Your task to perform on an android device: open app "Walmart Shopping & Grocery" (install if not already installed), go to login, and select forgot password Image 0: 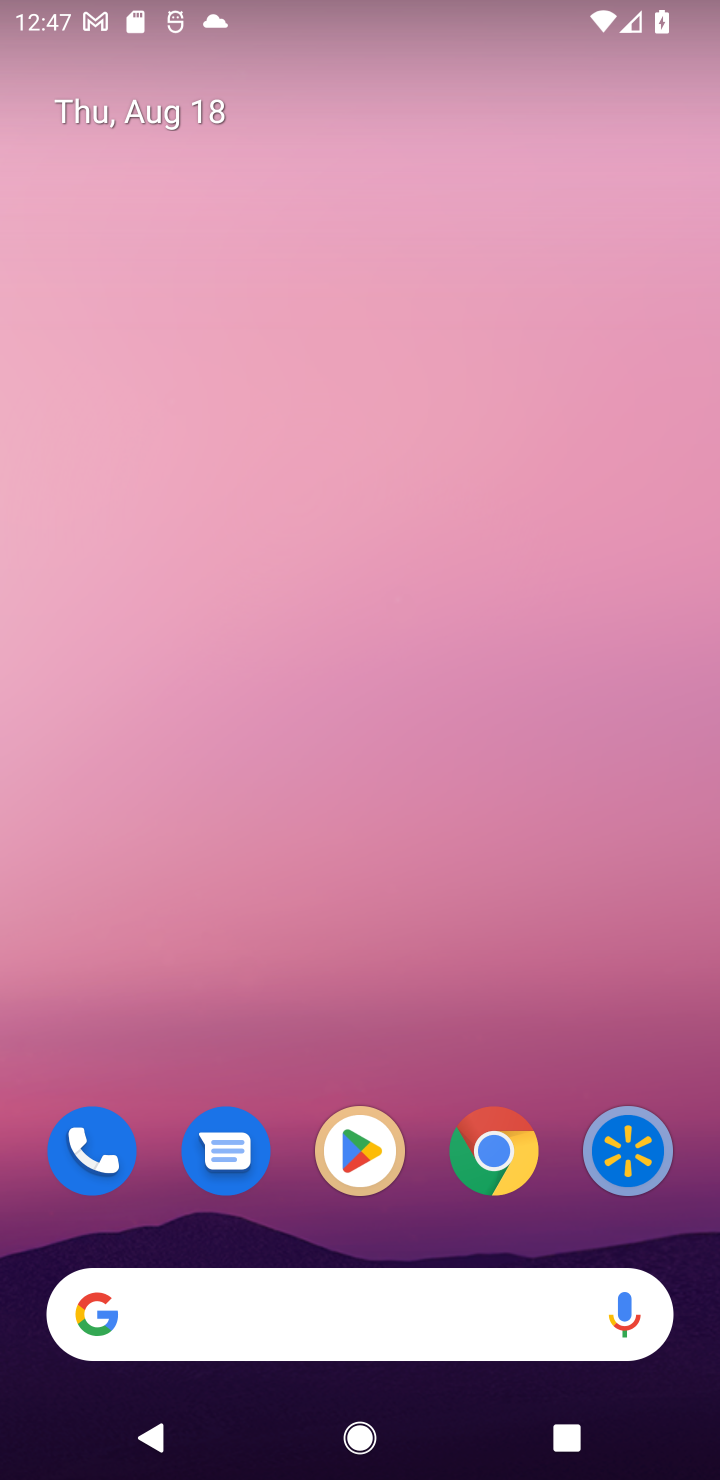
Step 0: click (350, 1175)
Your task to perform on an android device: open app "Walmart Shopping & Grocery" (install if not already installed), go to login, and select forgot password Image 1: 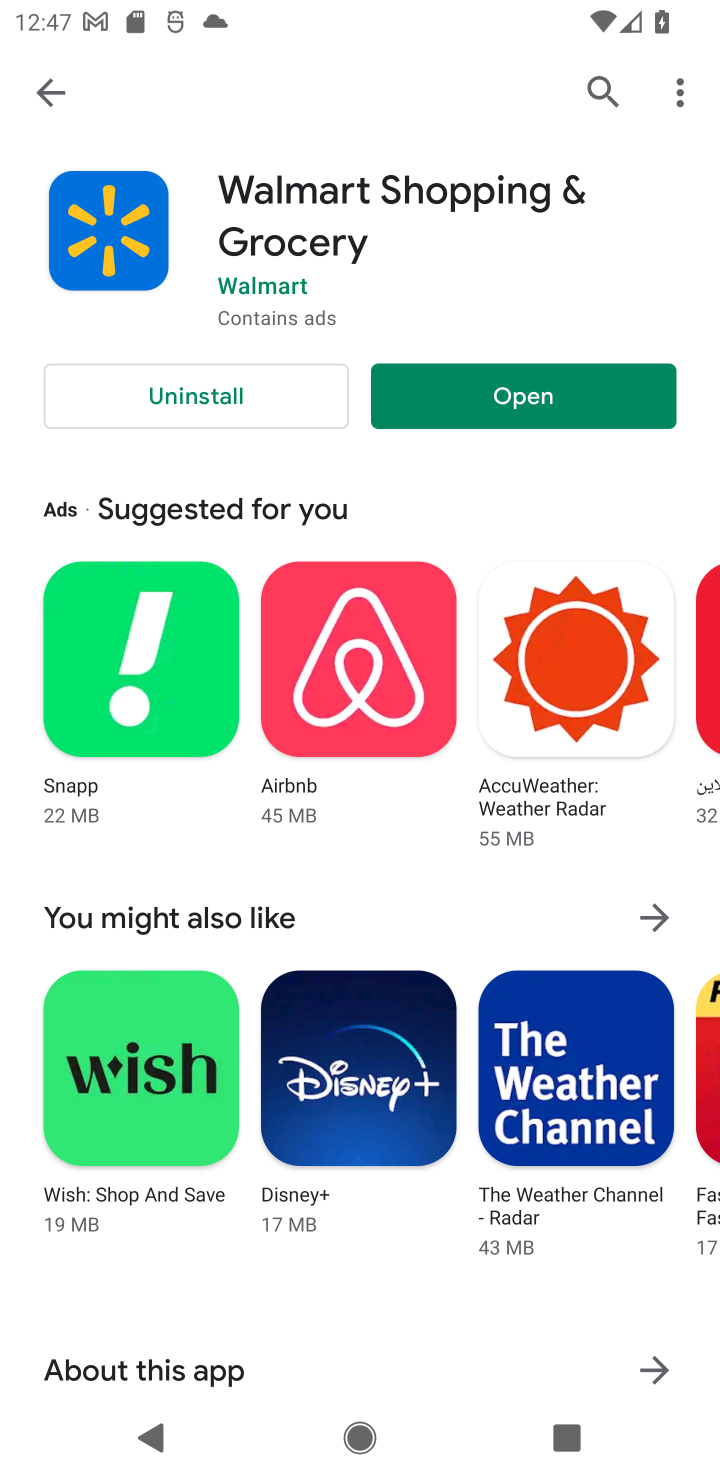
Step 1: click (54, 93)
Your task to perform on an android device: open app "Walmart Shopping & Grocery" (install if not already installed), go to login, and select forgot password Image 2: 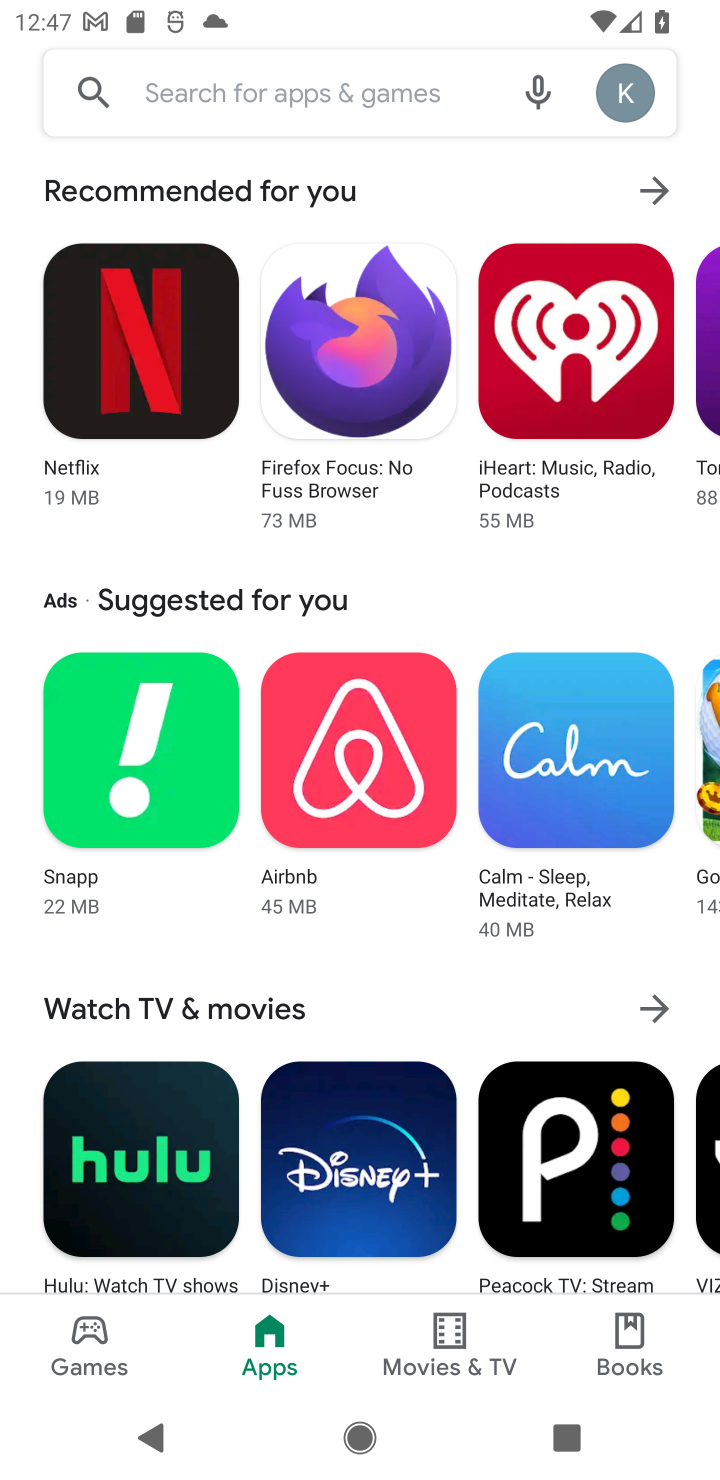
Step 2: click (211, 93)
Your task to perform on an android device: open app "Walmart Shopping & Grocery" (install if not already installed), go to login, and select forgot password Image 3: 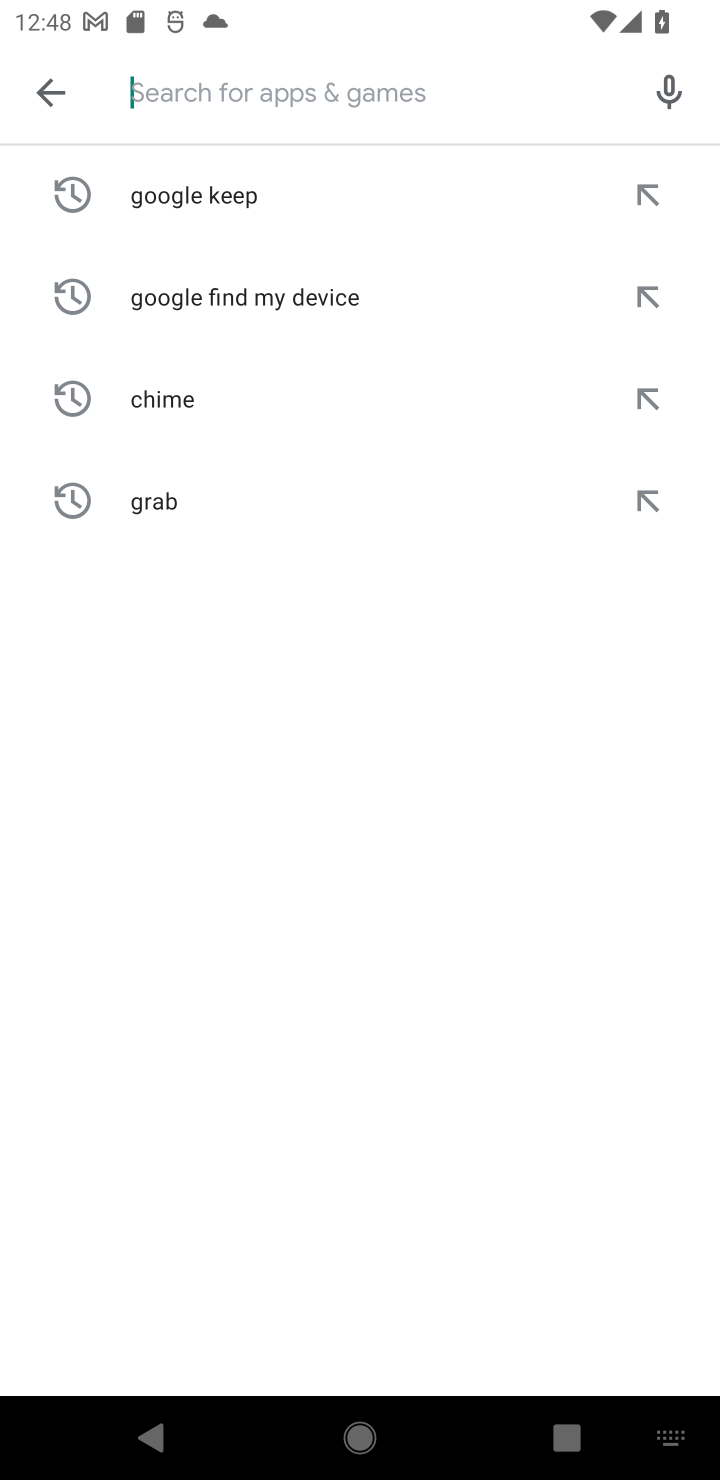
Step 3: type "Walmart Shopping & Grocery"
Your task to perform on an android device: open app "Walmart Shopping & Grocery" (install if not already installed), go to login, and select forgot password Image 4: 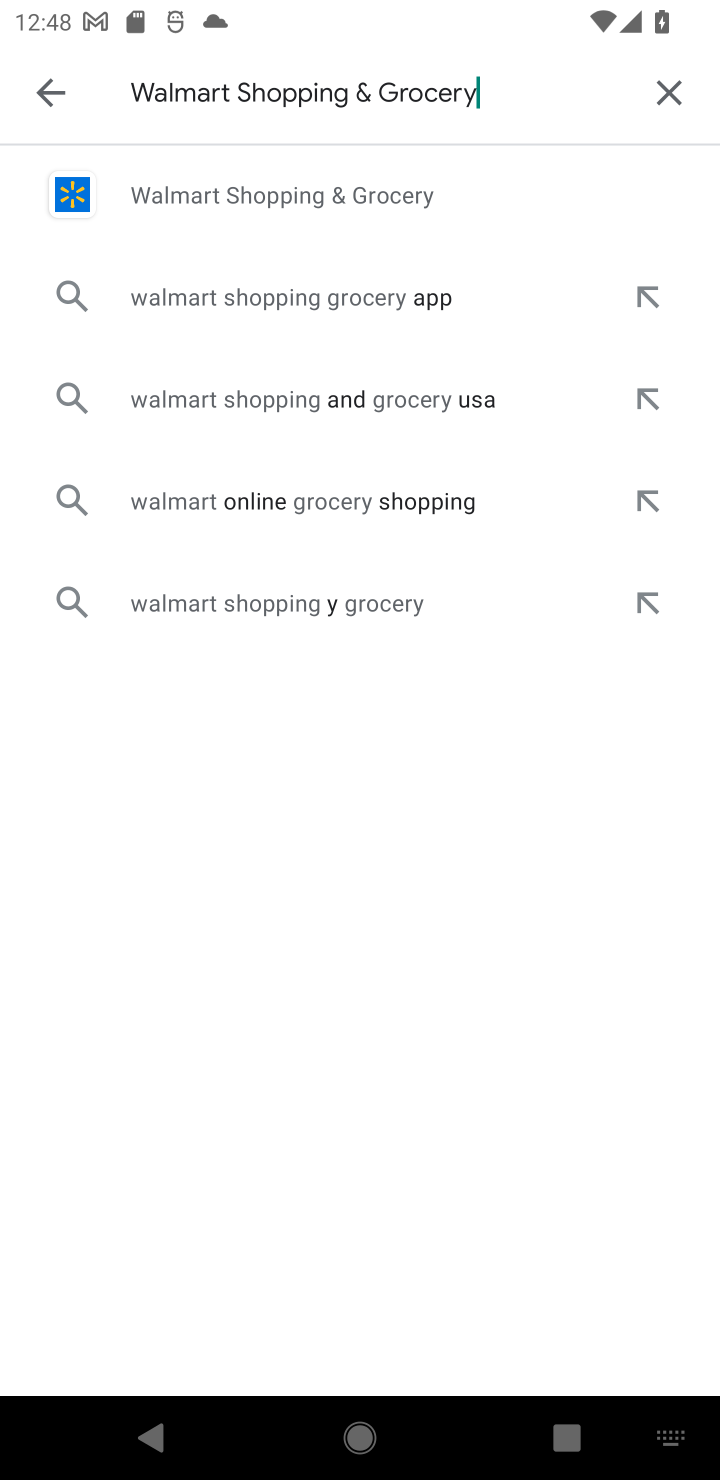
Step 4: click (303, 198)
Your task to perform on an android device: open app "Walmart Shopping & Grocery" (install if not already installed), go to login, and select forgot password Image 5: 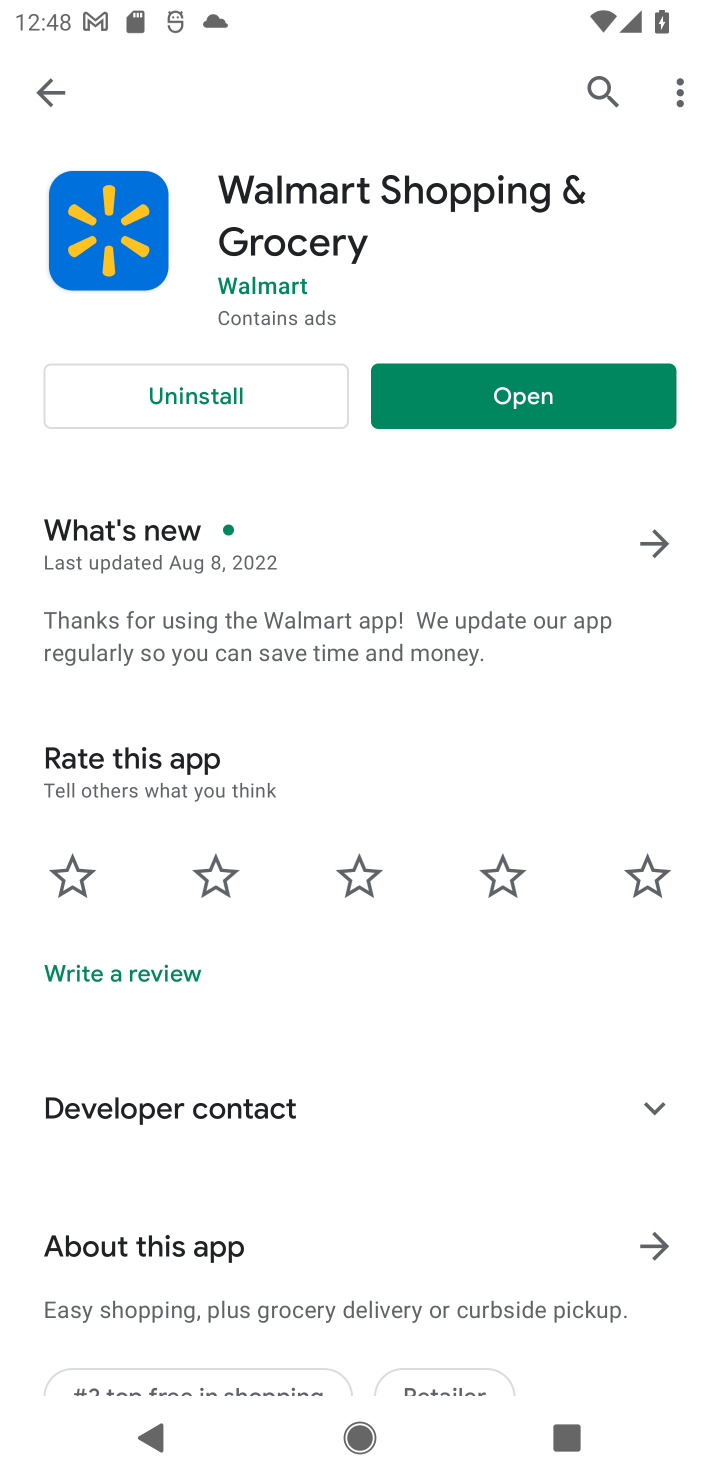
Step 5: click (519, 410)
Your task to perform on an android device: open app "Walmart Shopping & Grocery" (install if not already installed), go to login, and select forgot password Image 6: 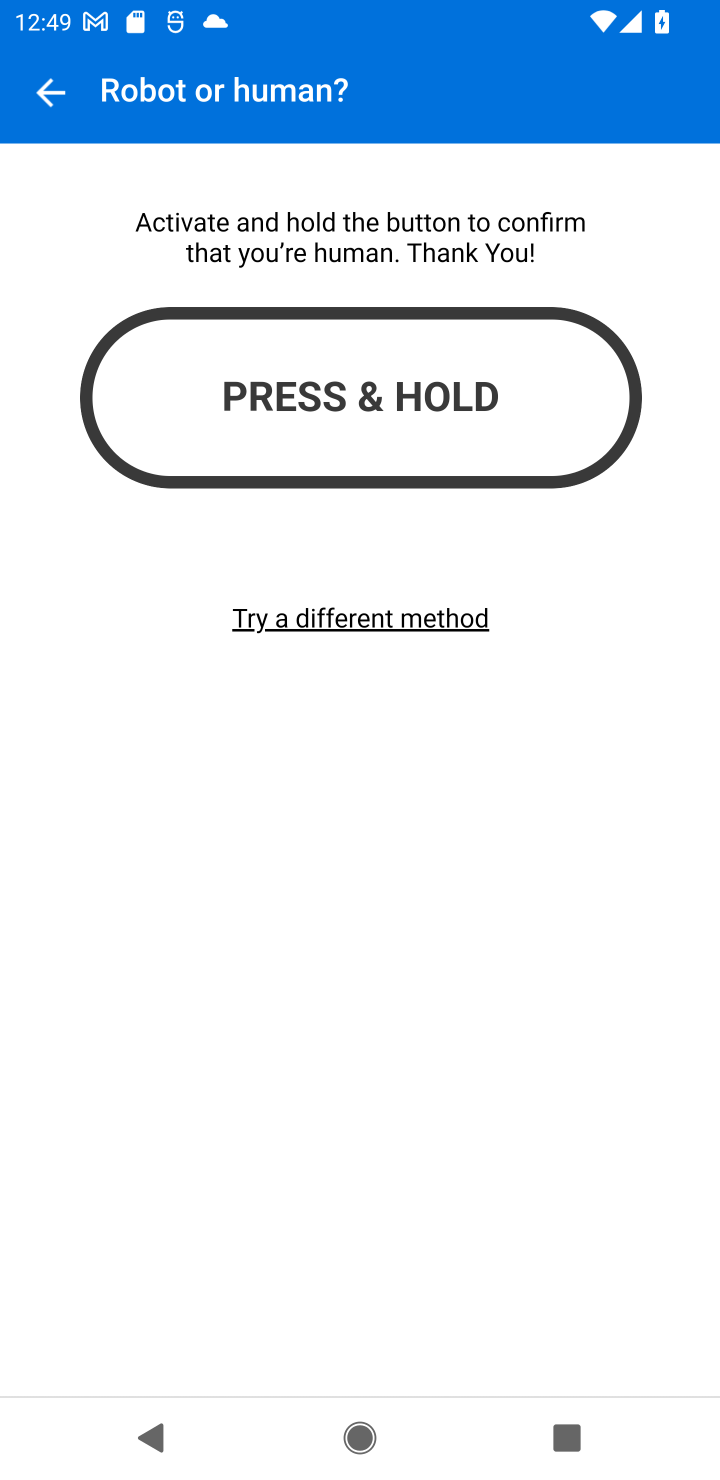
Step 6: task complete